Your task to perform on an android device: Open Google Chrome and open the bookmarks view Image 0: 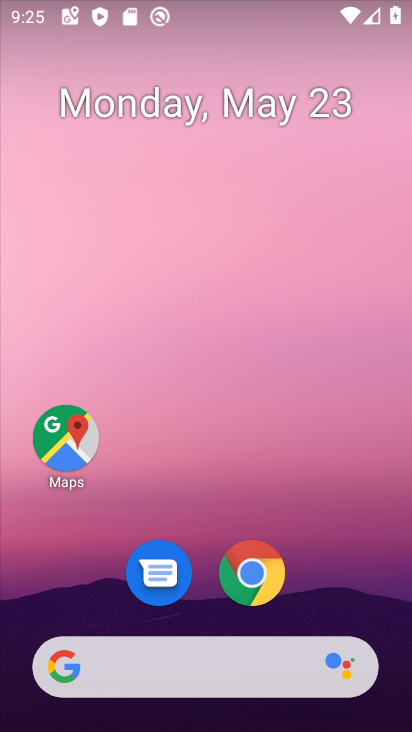
Step 0: drag from (378, 613) to (381, 115)
Your task to perform on an android device: Open Google Chrome and open the bookmarks view Image 1: 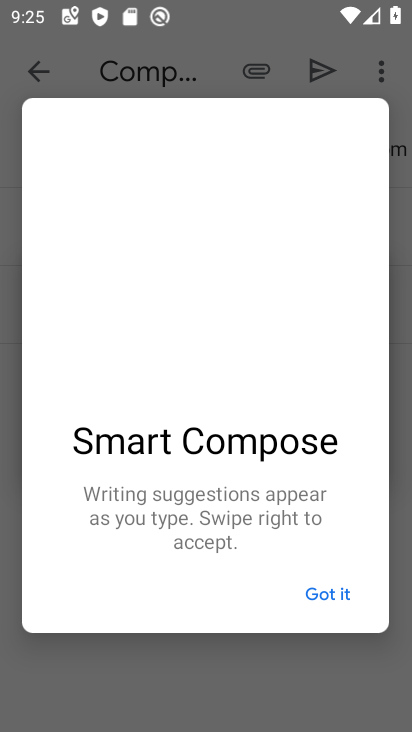
Step 1: press home button
Your task to perform on an android device: Open Google Chrome and open the bookmarks view Image 2: 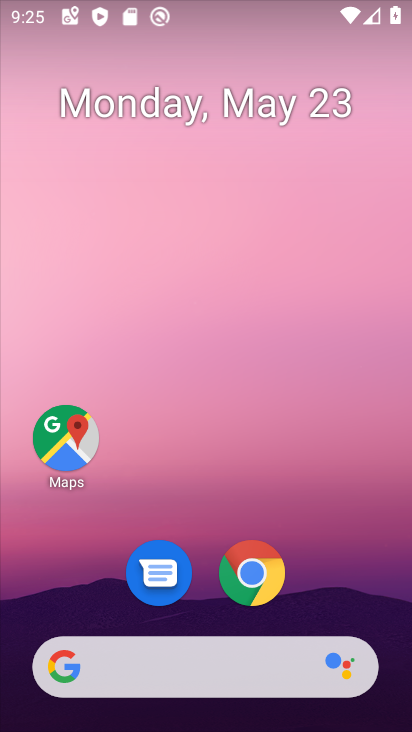
Step 2: drag from (358, 522) to (367, 157)
Your task to perform on an android device: Open Google Chrome and open the bookmarks view Image 3: 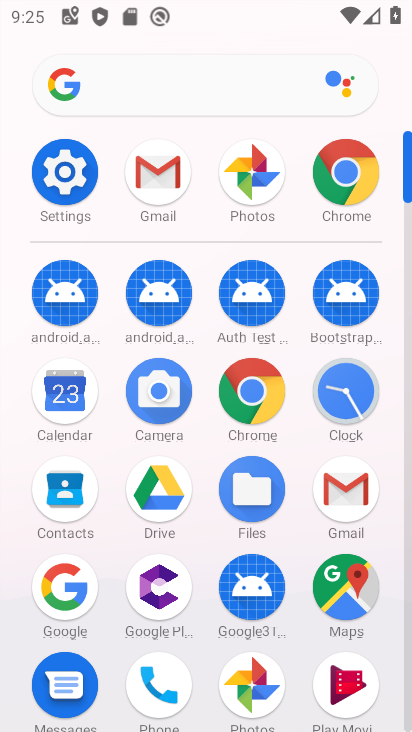
Step 3: click (262, 395)
Your task to perform on an android device: Open Google Chrome and open the bookmarks view Image 4: 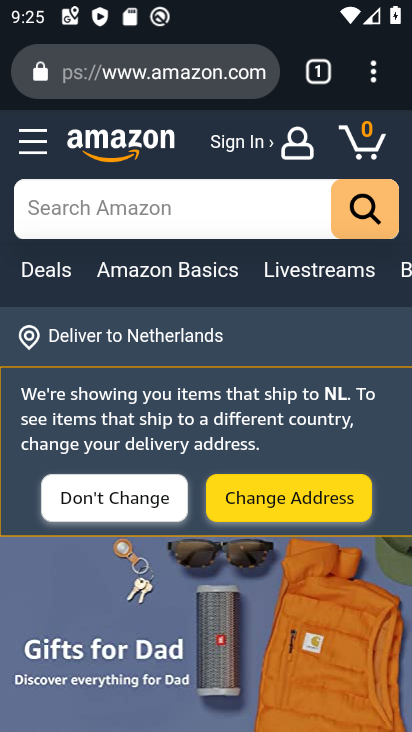
Step 4: click (376, 83)
Your task to perform on an android device: Open Google Chrome and open the bookmarks view Image 5: 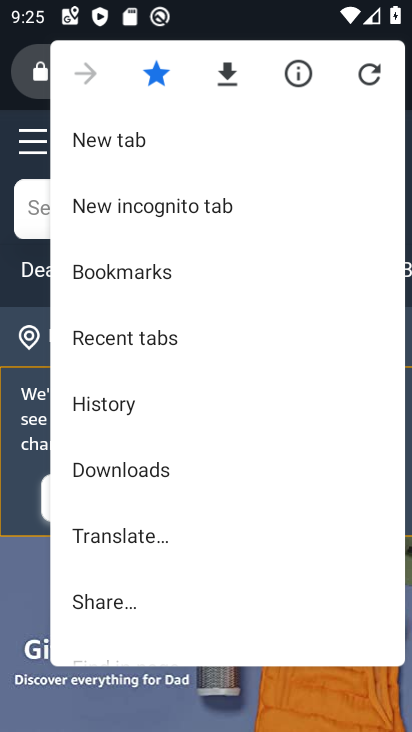
Step 5: drag from (331, 490) to (325, 367)
Your task to perform on an android device: Open Google Chrome and open the bookmarks view Image 6: 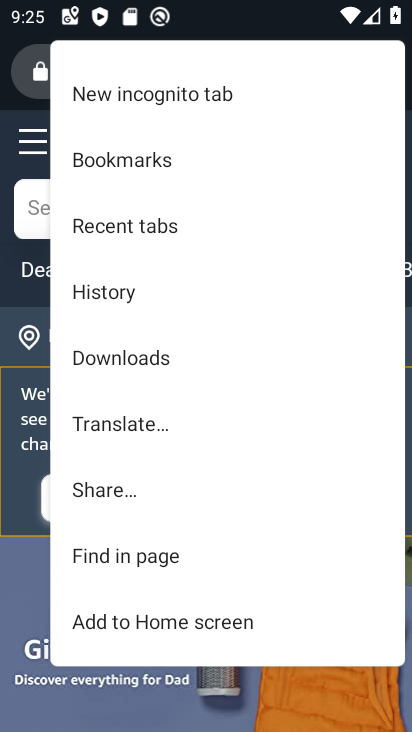
Step 6: drag from (327, 452) to (334, 330)
Your task to perform on an android device: Open Google Chrome and open the bookmarks view Image 7: 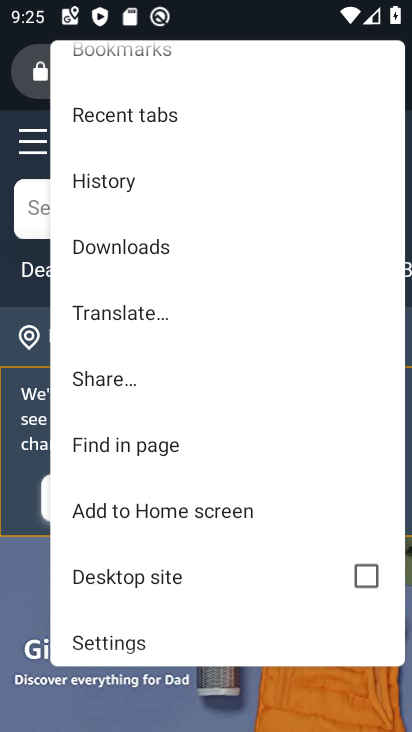
Step 7: drag from (314, 209) to (302, 295)
Your task to perform on an android device: Open Google Chrome and open the bookmarks view Image 8: 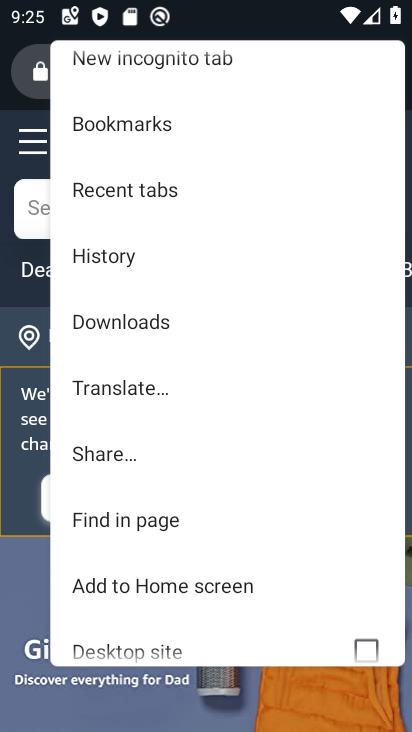
Step 8: drag from (296, 175) to (290, 286)
Your task to perform on an android device: Open Google Chrome and open the bookmarks view Image 9: 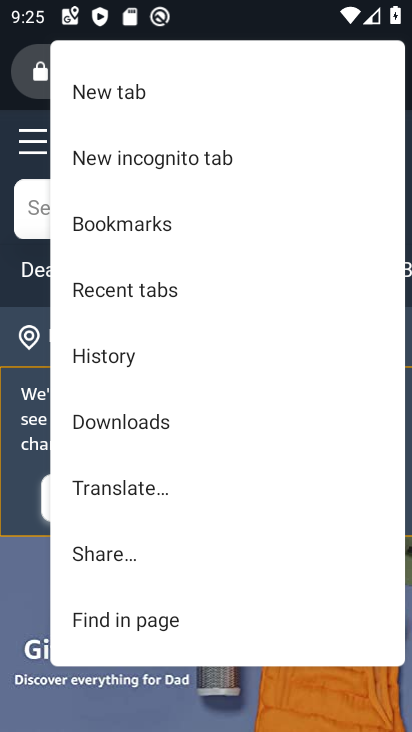
Step 9: click (155, 229)
Your task to perform on an android device: Open Google Chrome and open the bookmarks view Image 10: 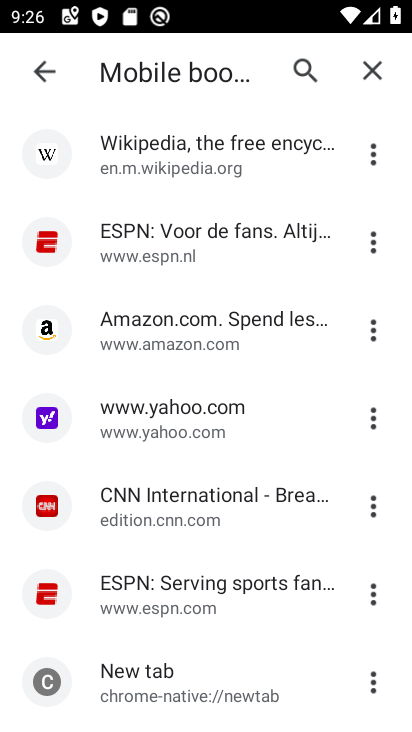
Step 10: task complete